Your task to perform on an android device: toggle wifi Image 0: 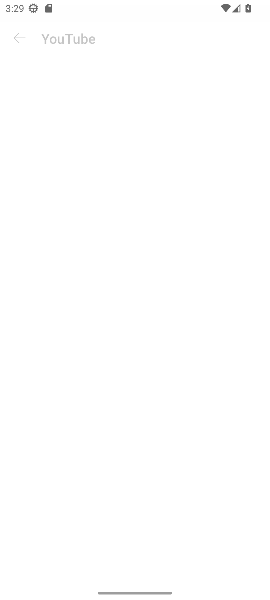
Step 0: drag from (142, 579) to (88, 142)
Your task to perform on an android device: toggle wifi Image 1: 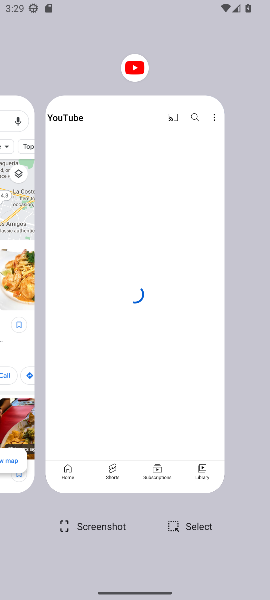
Step 1: press back button
Your task to perform on an android device: toggle wifi Image 2: 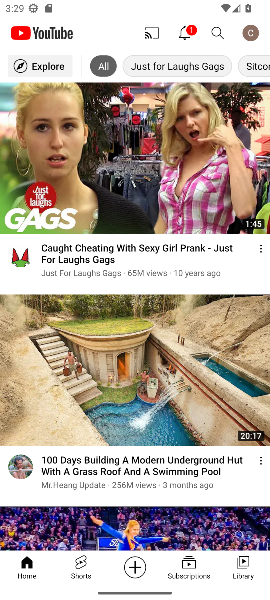
Step 2: press home button
Your task to perform on an android device: toggle wifi Image 3: 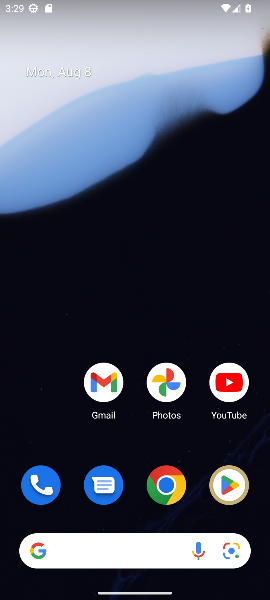
Step 3: drag from (174, 560) to (98, 94)
Your task to perform on an android device: toggle wifi Image 4: 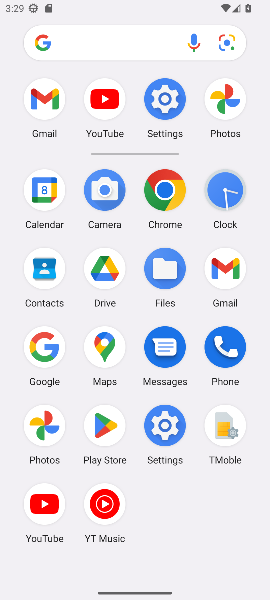
Step 4: click (169, 104)
Your task to perform on an android device: toggle wifi Image 5: 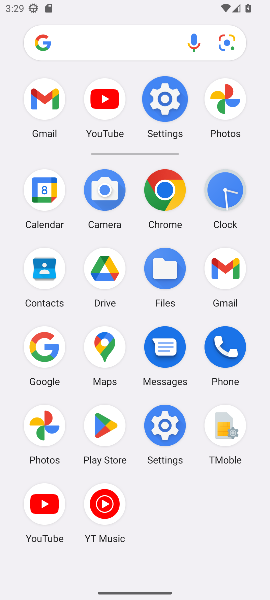
Step 5: click (151, 120)
Your task to perform on an android device: toggle wifi Image 6: 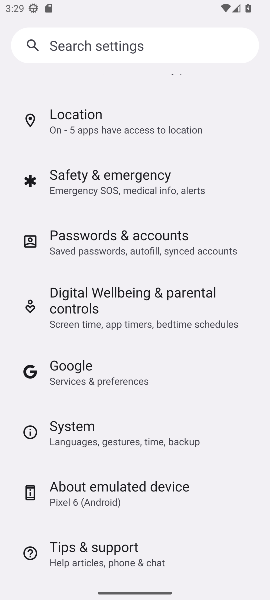
Step 6: click (109, 597)
Your task to perform on an android device: toggle wifi Image 7: 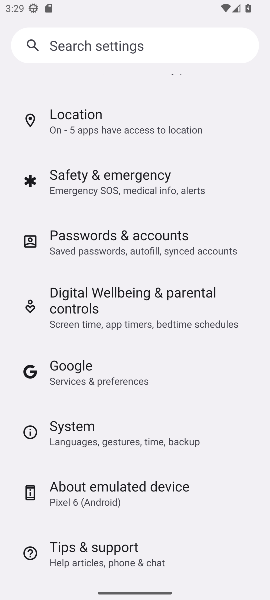
Step 7: drag from (109, 188) to (113, 544)
Your task to perform on an android device: toggle wifi Image 8: 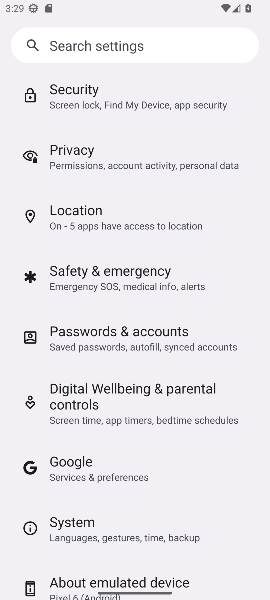
Step 8: drag from (152, 184) to (133, 585)
Your task to perform on an android device: toggle wifi Image 9: 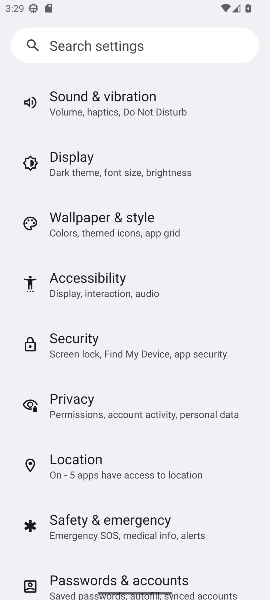
Step 9: drag from (75, 188) to (135, 486)
Your task to perform on an android device: toggle wifi Image 10: 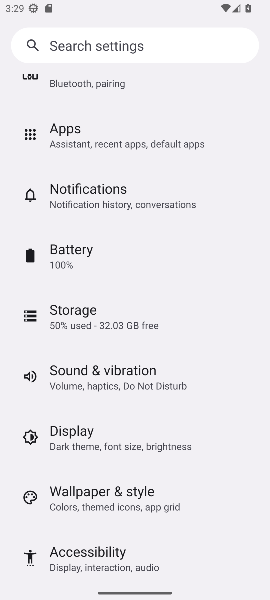
Step 10: drag from (132, 122) to (159, 529)
Your task to perform on an android device: toggle wifi Image 11: 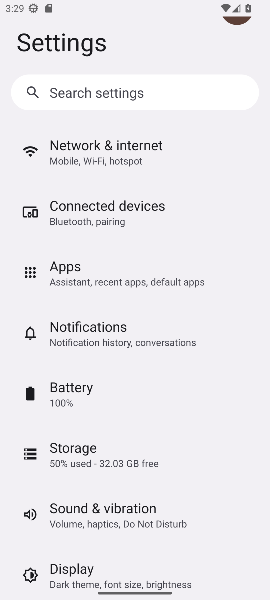
Step 11: drag from (140, 108) to (186, 451)
Your task to perform on an android device: toggle wifi Image 12: 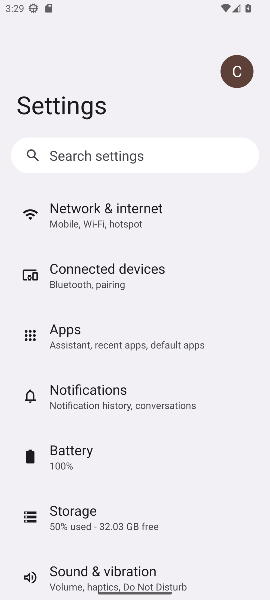
Step 12: drag from (122, 244) to (154, 450)
Your task to perform on an android device: toggle wifi Image 13: 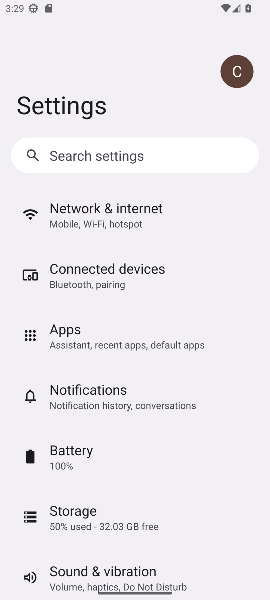
Step 13: click (100, 211)
Your task to perform on an android device: toggle wifi Image 14: 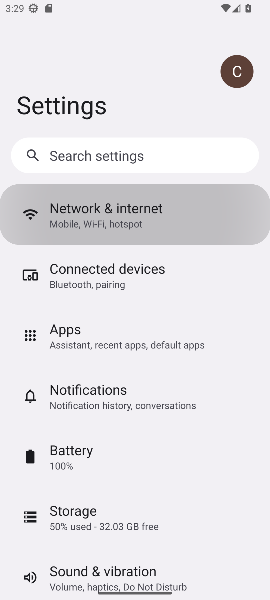
Step 14: click (100, 211)
Your task to perform on an android device: toggle wifi Image 15: 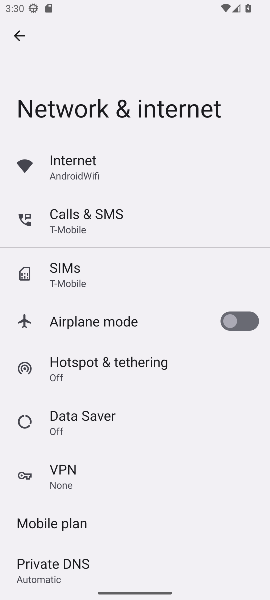
Step 15: click (79, 169)
Your task to perform on an android device: toggle wifi Image 16: 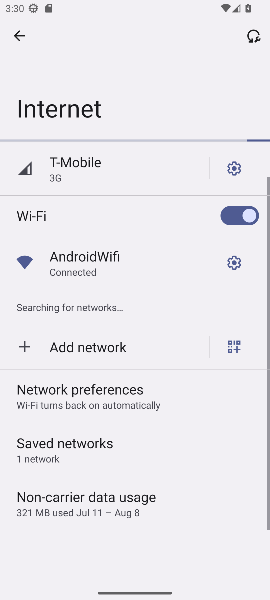
Step 16: task complete